Your task to perform on an android device: Open Wikipedia Image 0: 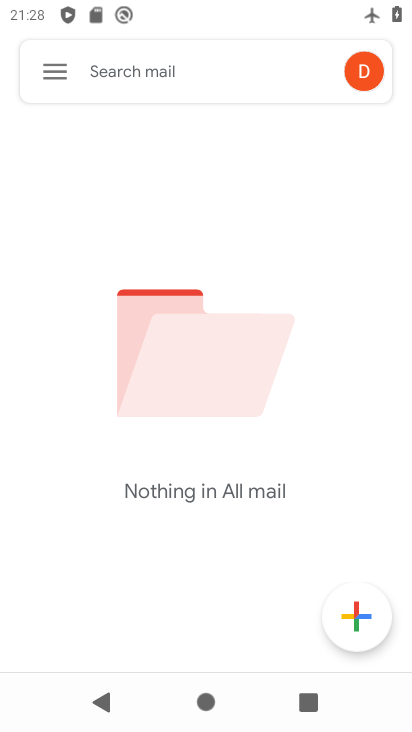
Step 0: press home button
Your task to perform on an android device: Open Wikipedia Image 1: 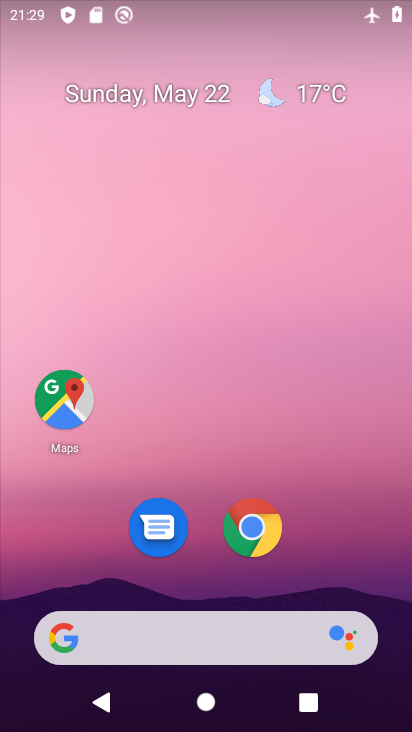
Step 1: click (252, 531)
Your task to perform on an android device: Open Wikipedia Image 2: 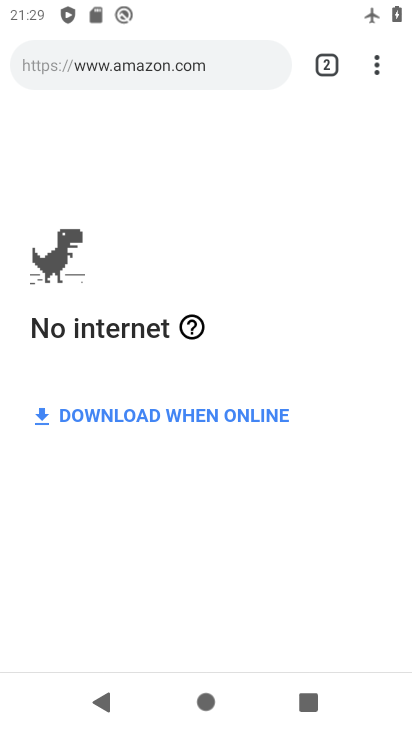
Step 2: click (376, 62)
Your task to perform on an android device: Open Wikipedia Image 3: 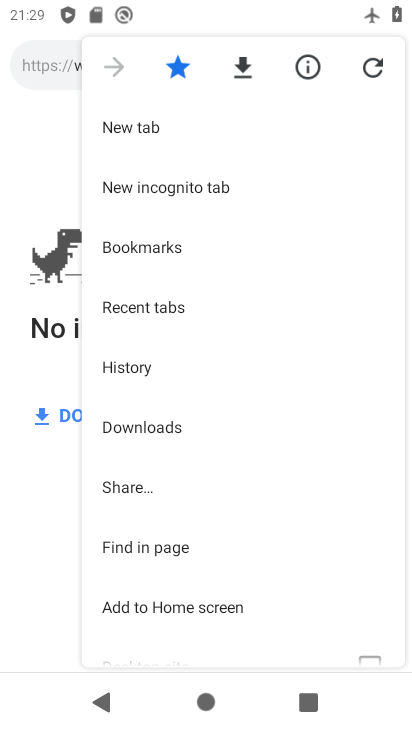
Step 3: click (130, 125)
Your task to perform on an android device: Open Wikipedia Image 4: 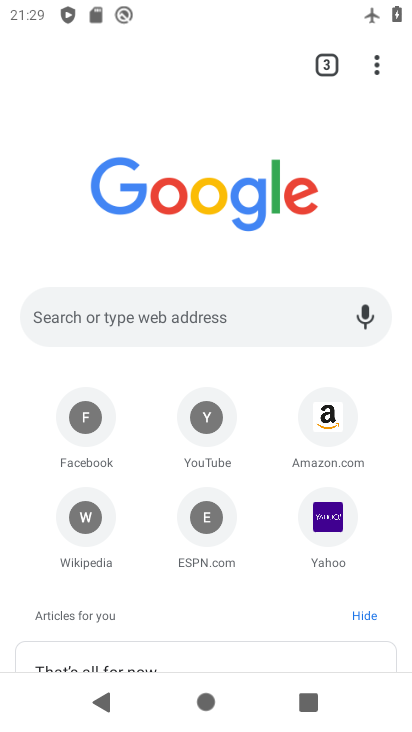
Step 4: click (81, 511)
Your task to perform on an android device: Open Wikipedia Image 5: 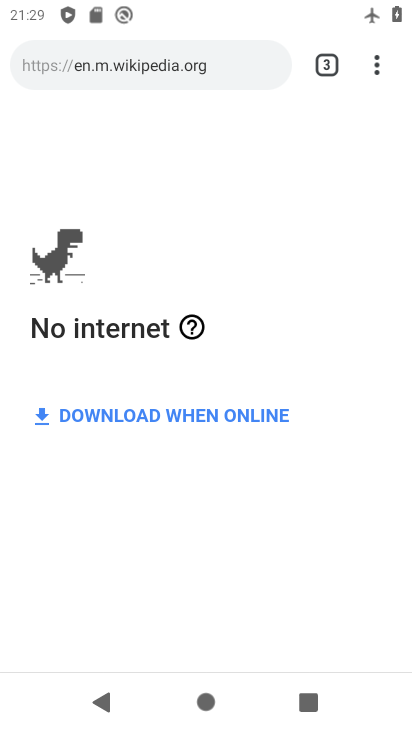
Step 5: task complete